Your task to perform on an android device: open app "Yahoo Mail" (install if not already installed) Image 0: 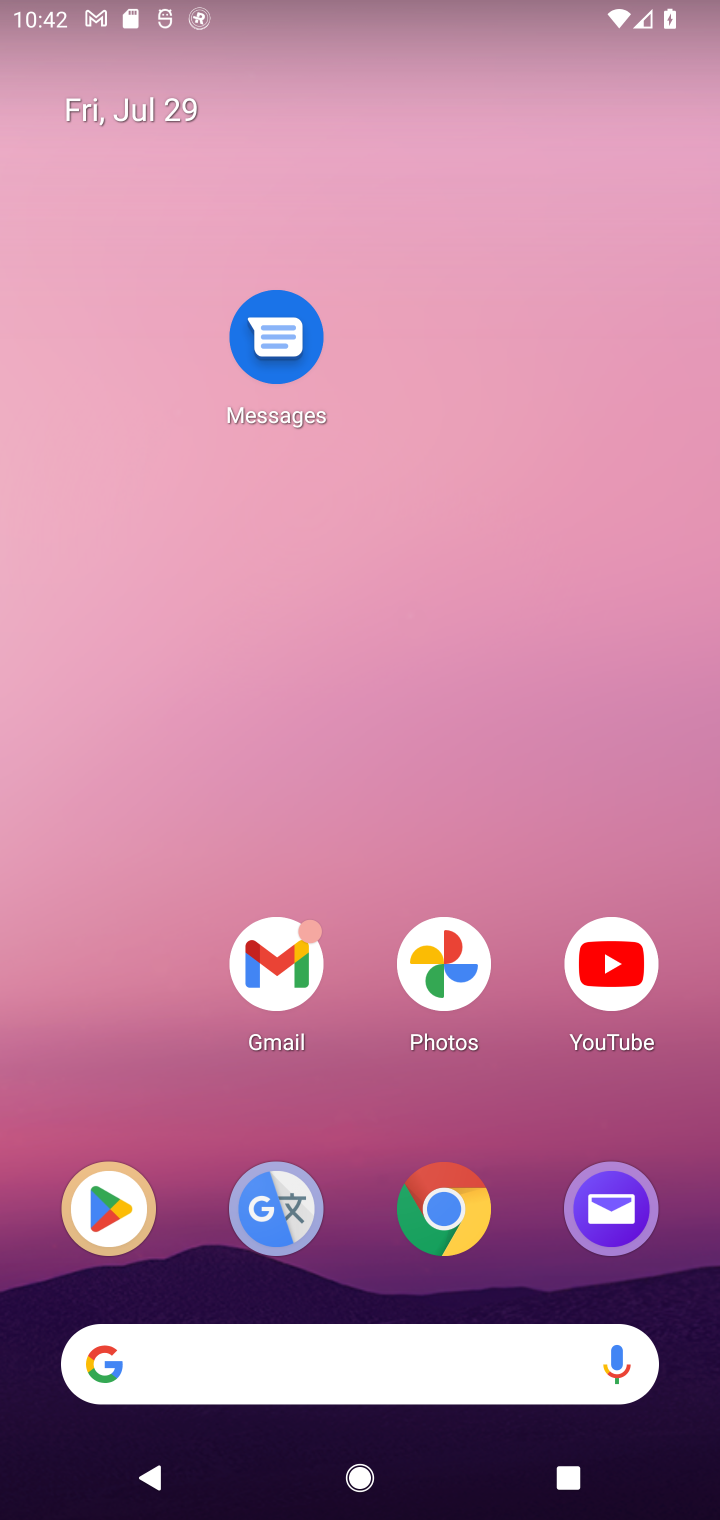
Step 0: drag from (338, 1365) to (519, 474)
Your task to perform on an android device: open app "Yahoo Mail" (install if not already installed) Image 1: 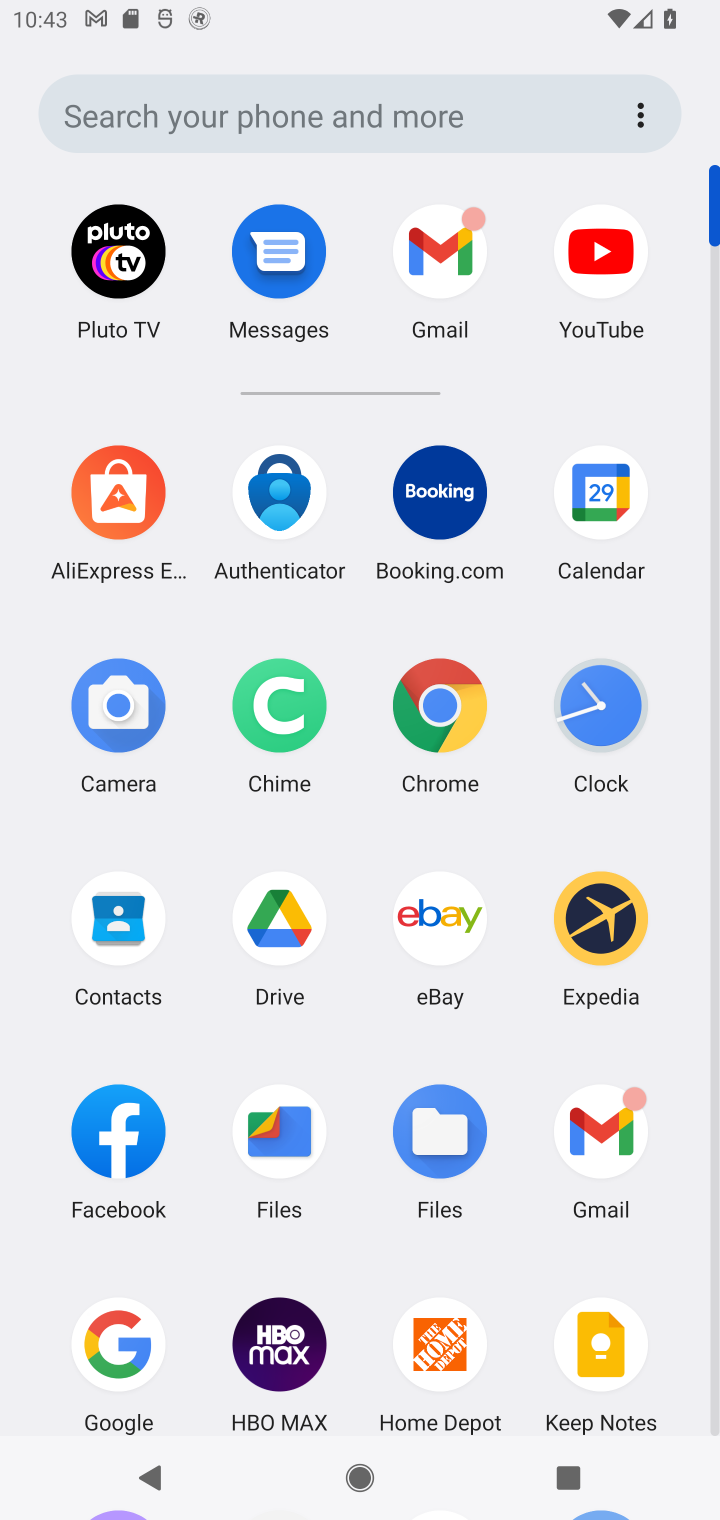
Step 1: drag from (311, 1234) to (336, 432)
Your task to perform on an android device: open app "Yahoo Mail" (install if not already installed) Image 2: 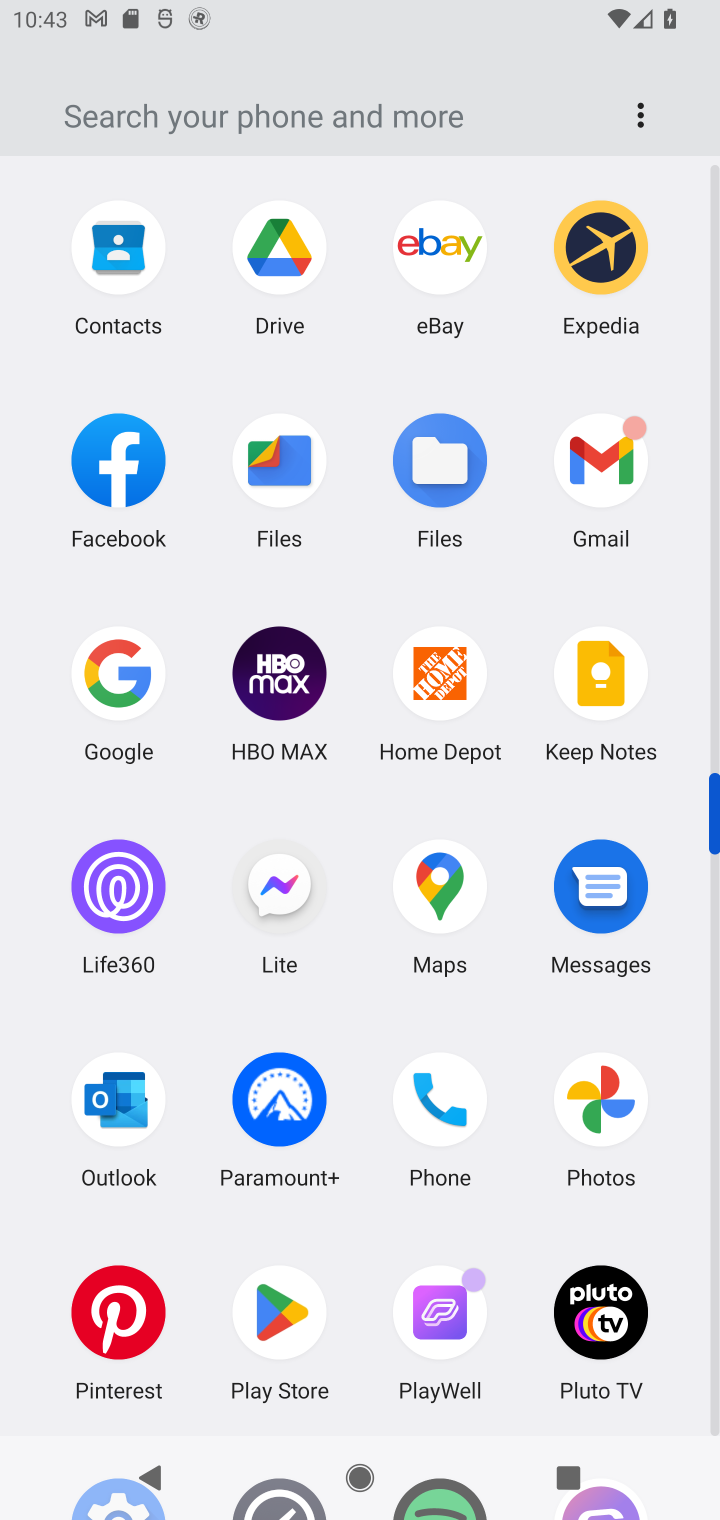
Step 2: click (285, 1311)
Your task to perform on an android device: open app "Yahoo Mail" (install if not already installed) Image 3: 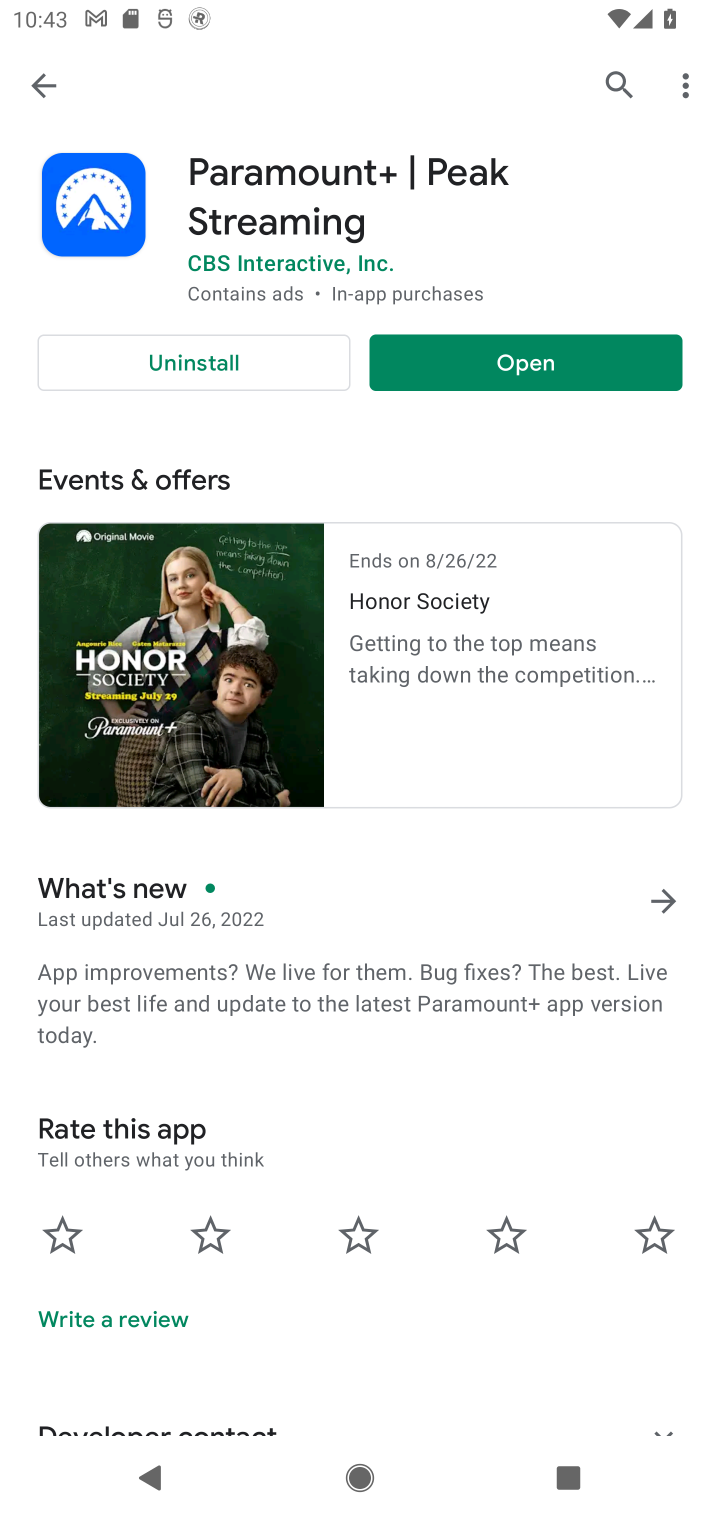
Step 3: click (613, 77)
Your task to perform on an android device: open app "Yahoo Mail" (install if not already installed) Image 4: 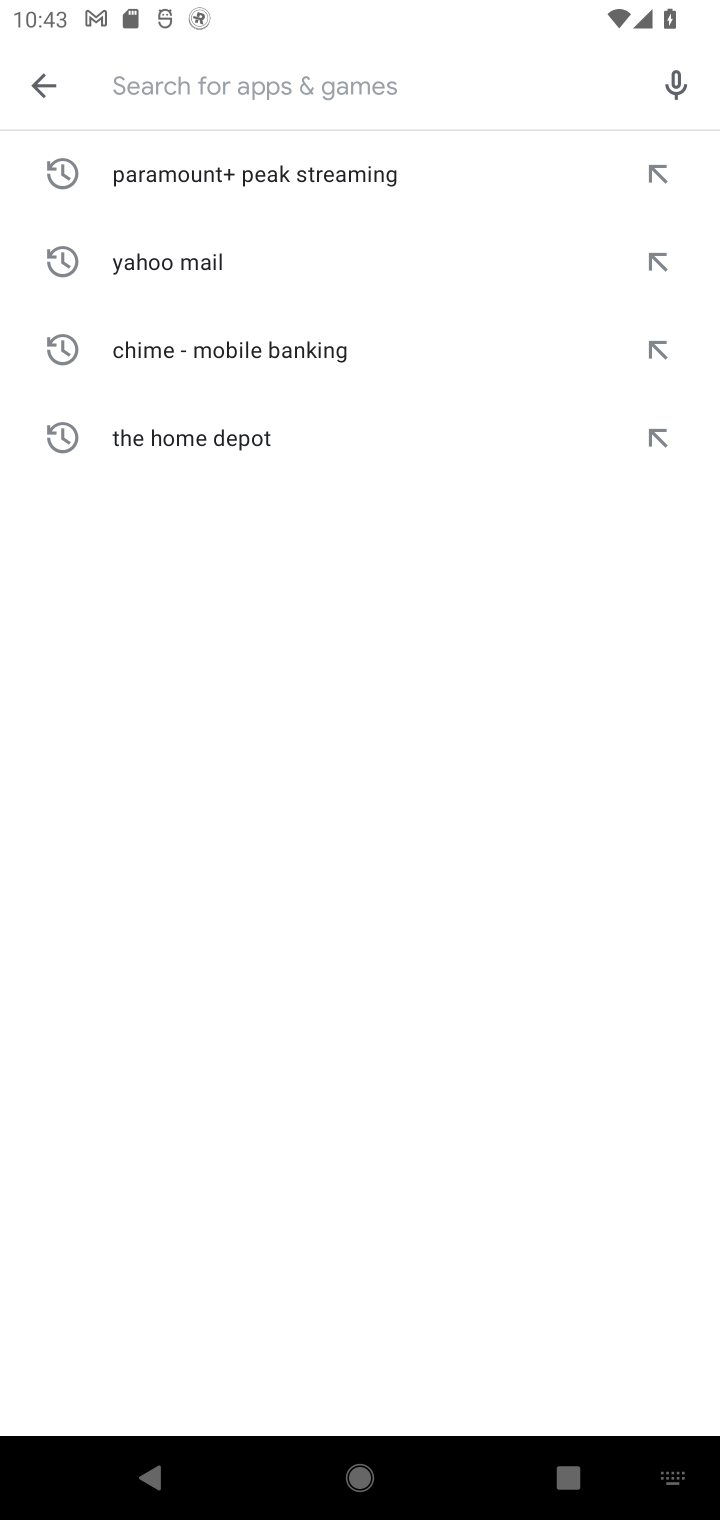
Step 4: type "Yahoo Mail"
Your task to perform on an android device: open app "Yahoo Mail" (install if not already installed) Image 5: 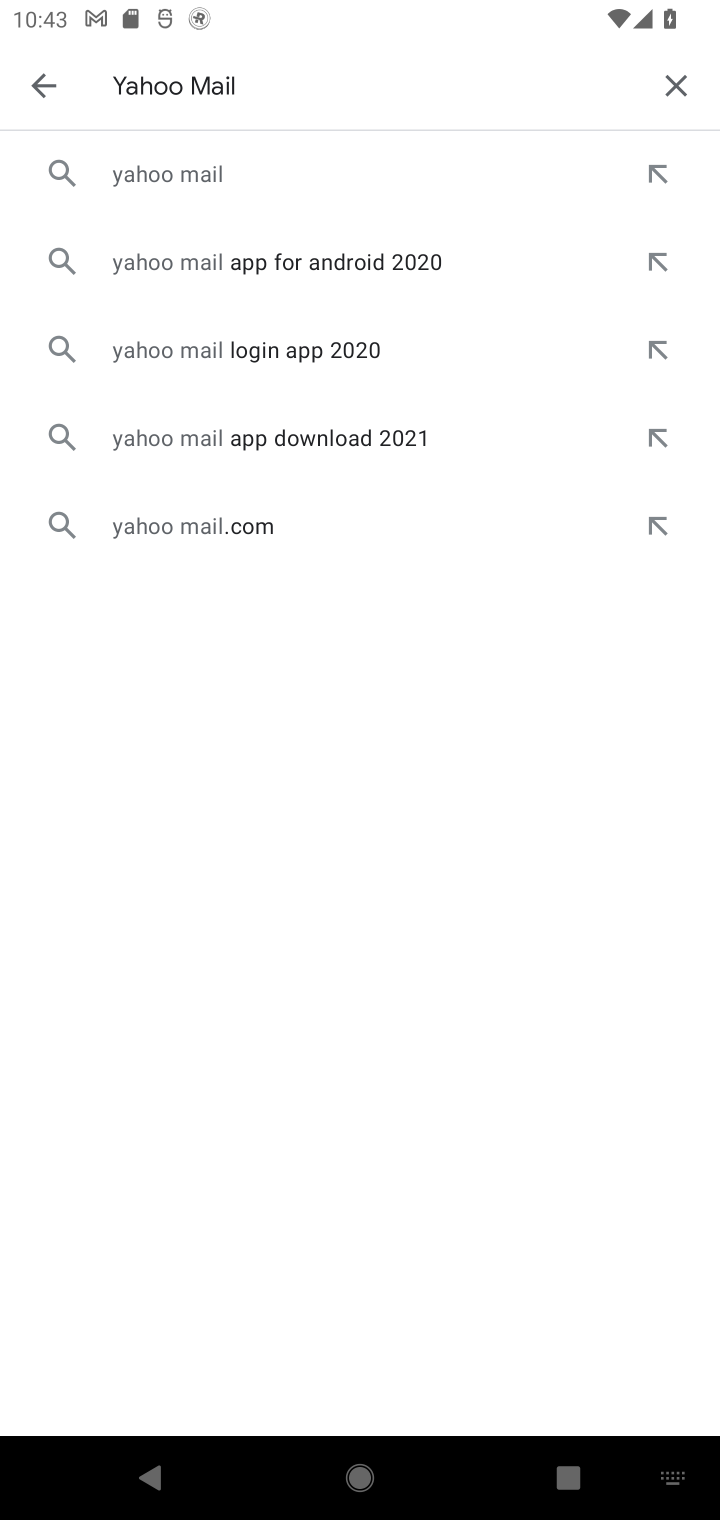
Step 5: click (197, 176)
Your task to perform on an android device: open app "Yahoo Mail" (install if not already installed) Image 6: 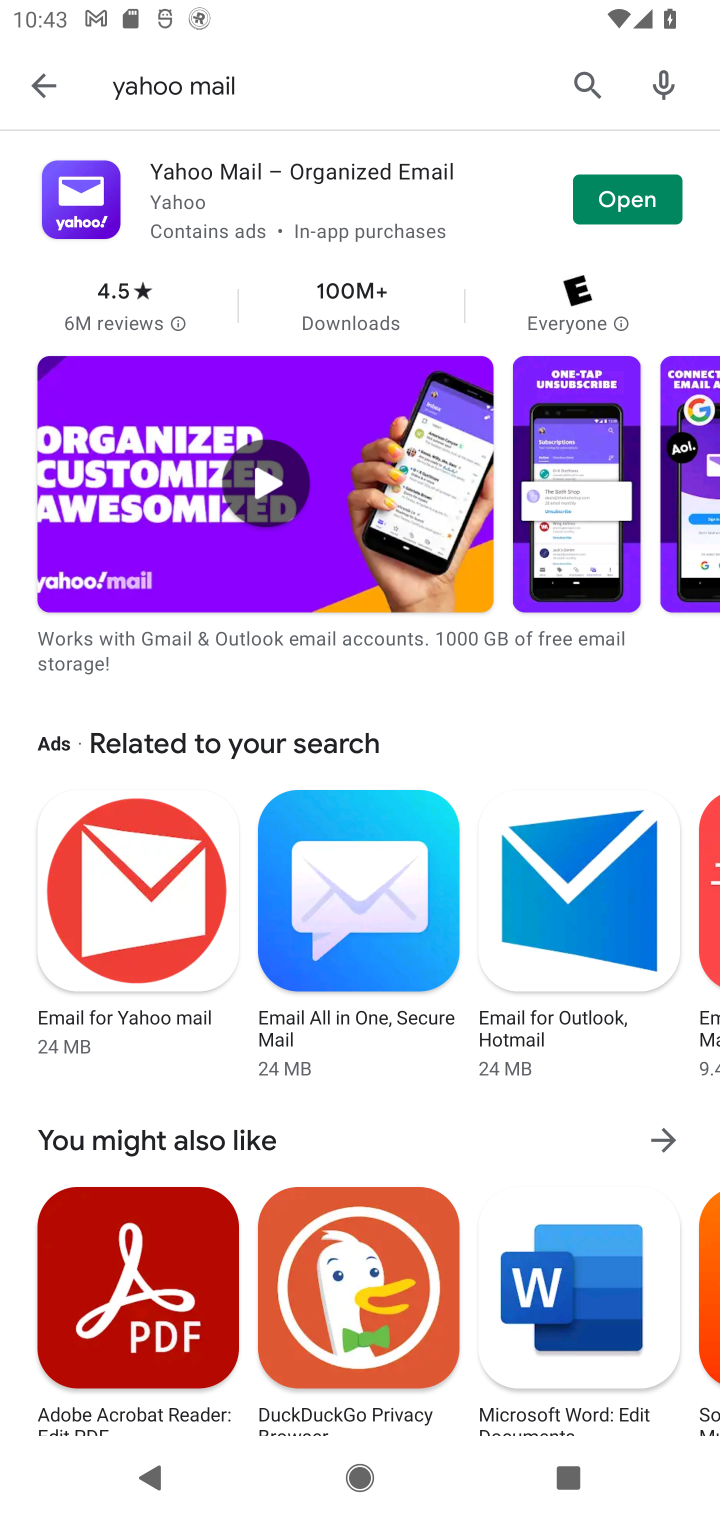
Step 6: click (635, 213)
Your task to perform on an android device: open app "Yahoo Mail" (install if not already installed) Image 7: 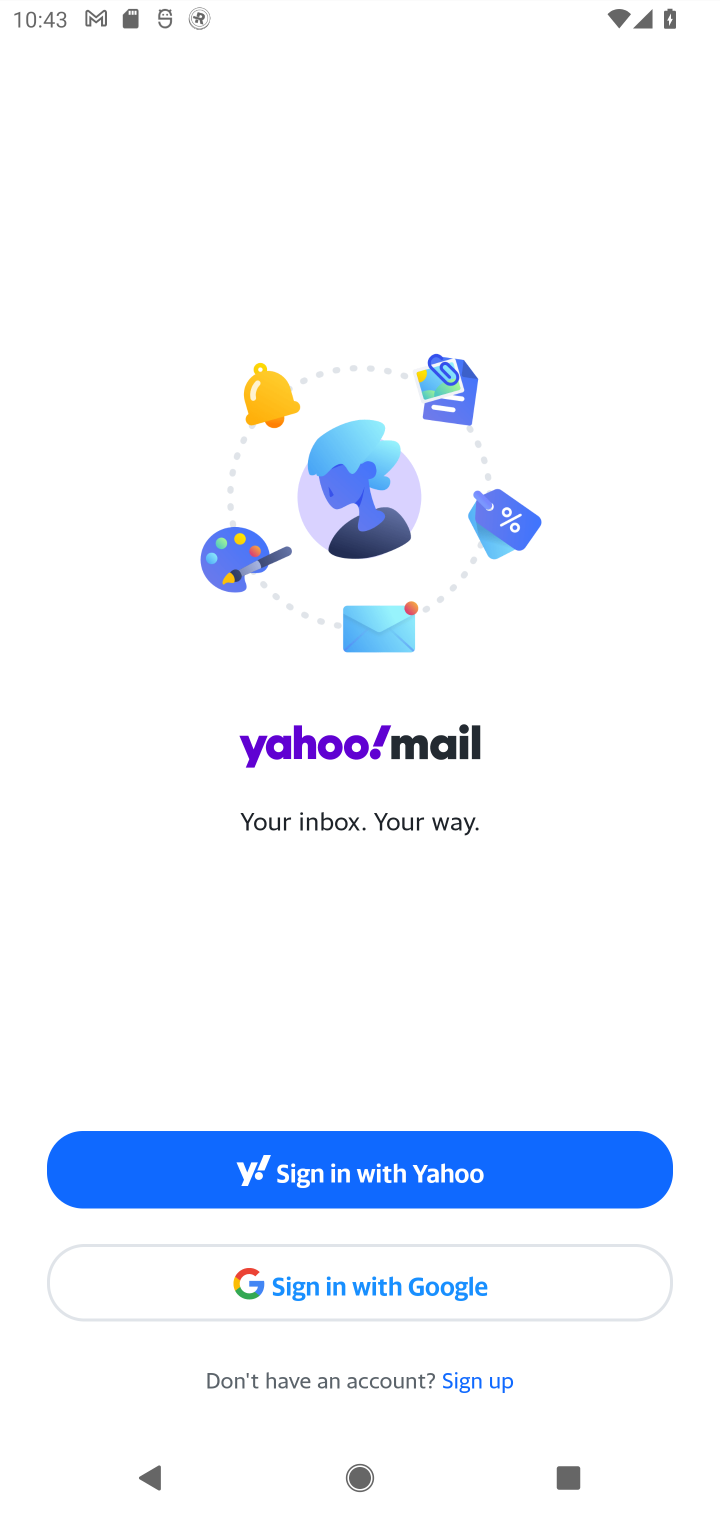
Step 7: task complete